Your task to perform on an android device: Open Reddit.com Image 0: 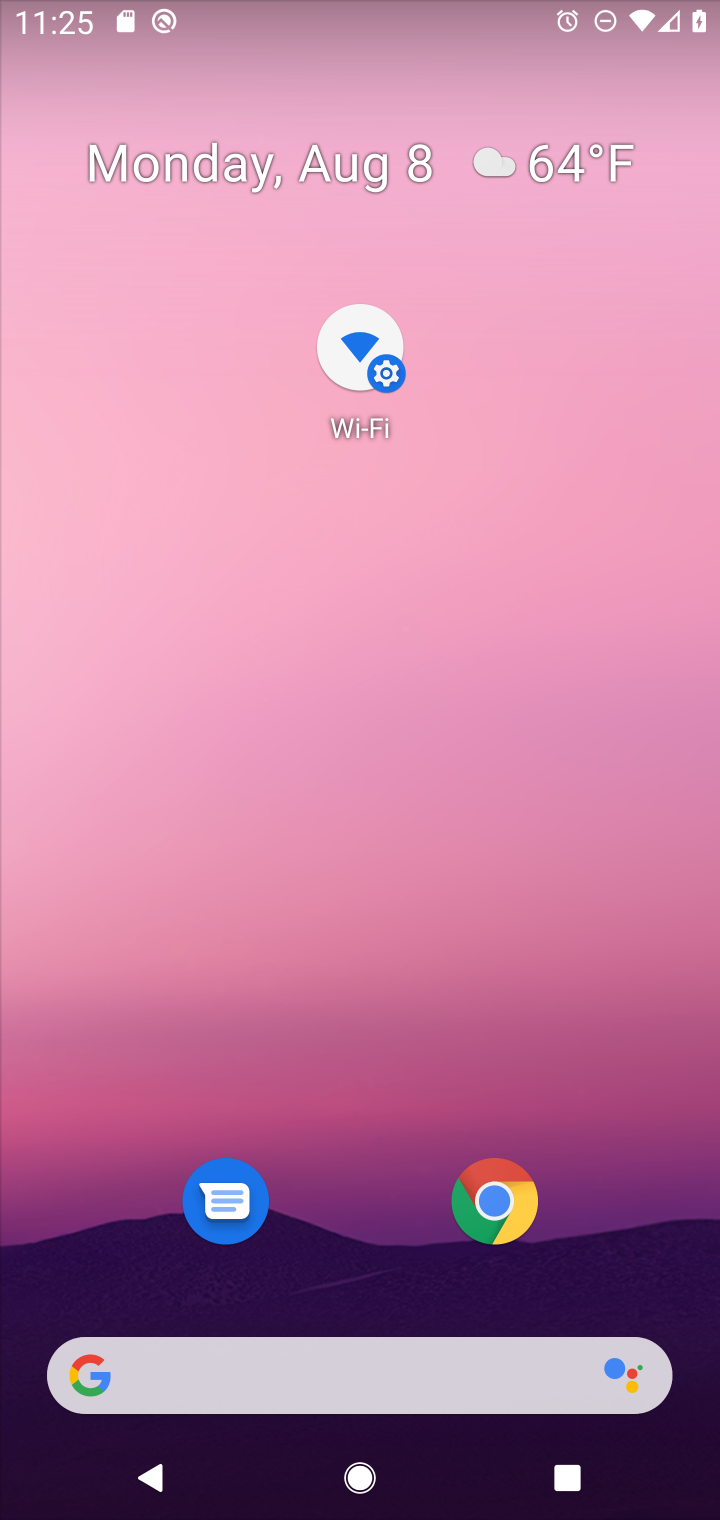
Step 0: press home button
Your task to perform on an android device: Open Reddit.com Image 1: 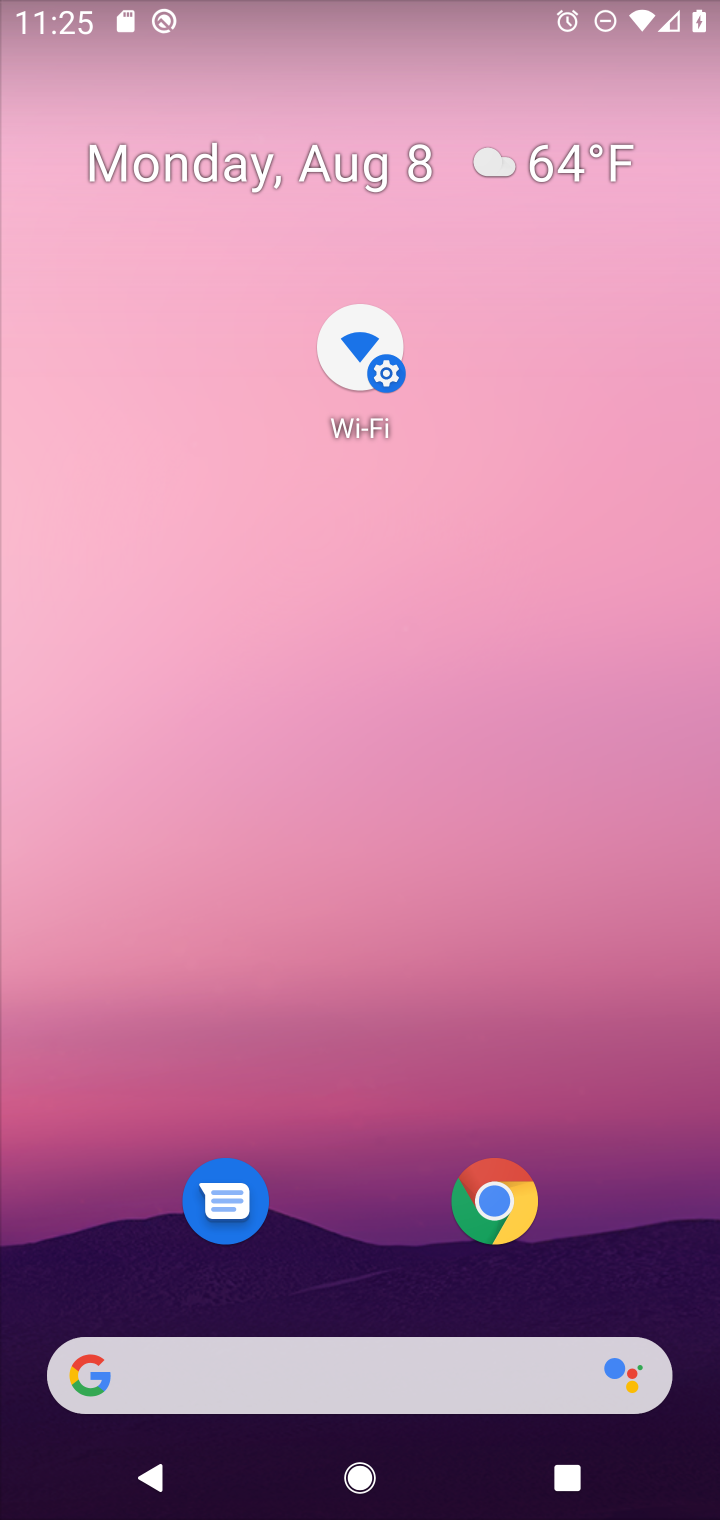
Step 1: drag from (356, 1162) to (494, 83)
Your task to perform on an android device: Open Reddit.com Image 2: 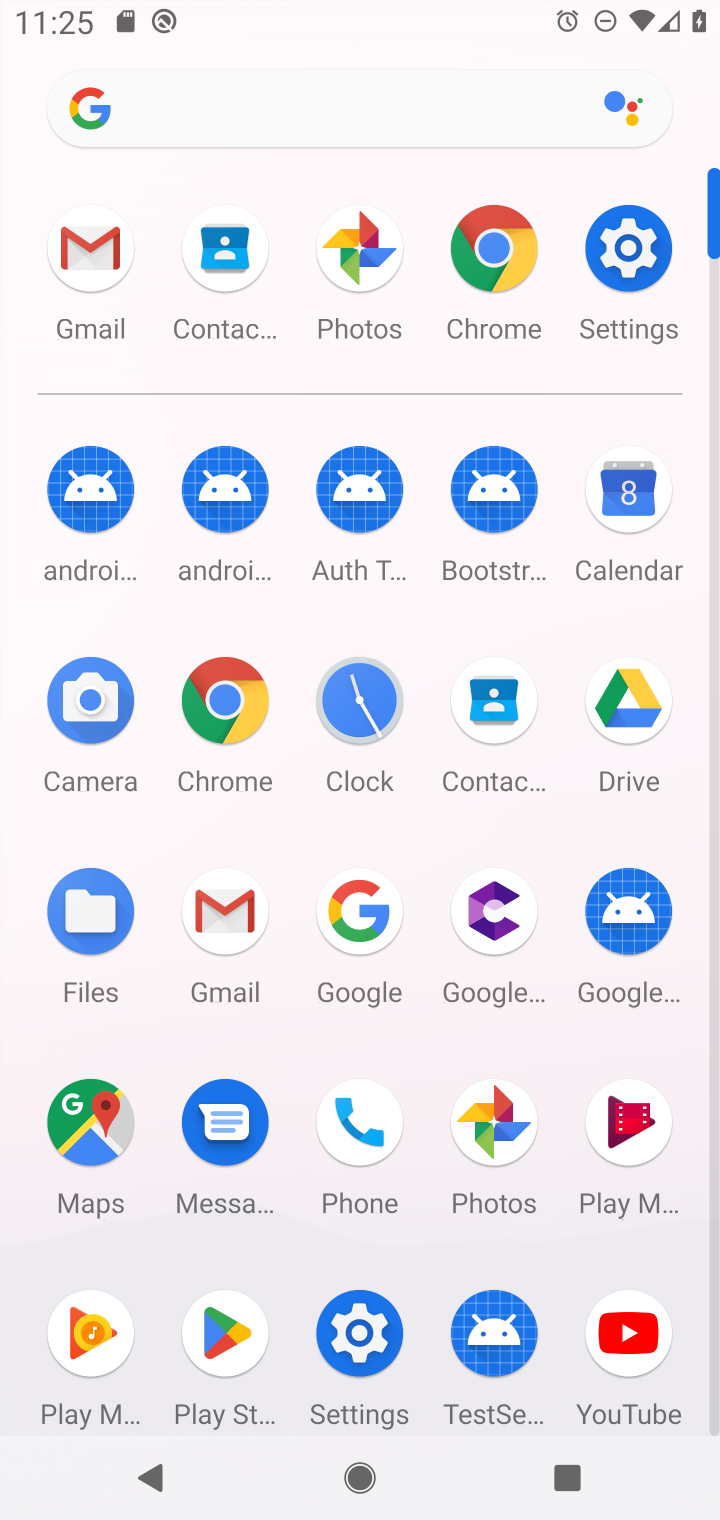
Step 2: click (225, 703)
Your task to perform on an android device: Open Reddit.com Image 3: 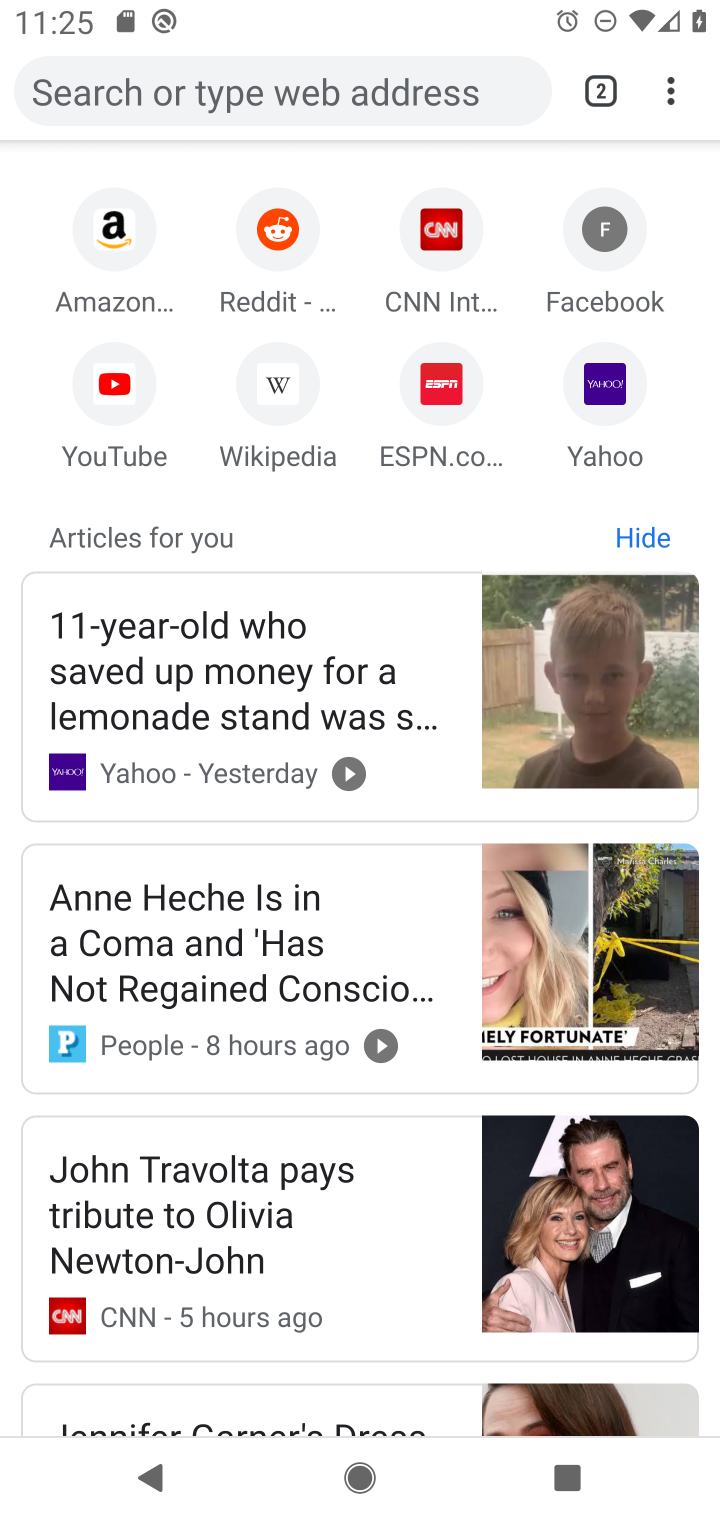
Step 3: click (402, 94)
Your task to perform on an android device: Open Reddit.com Image 4: 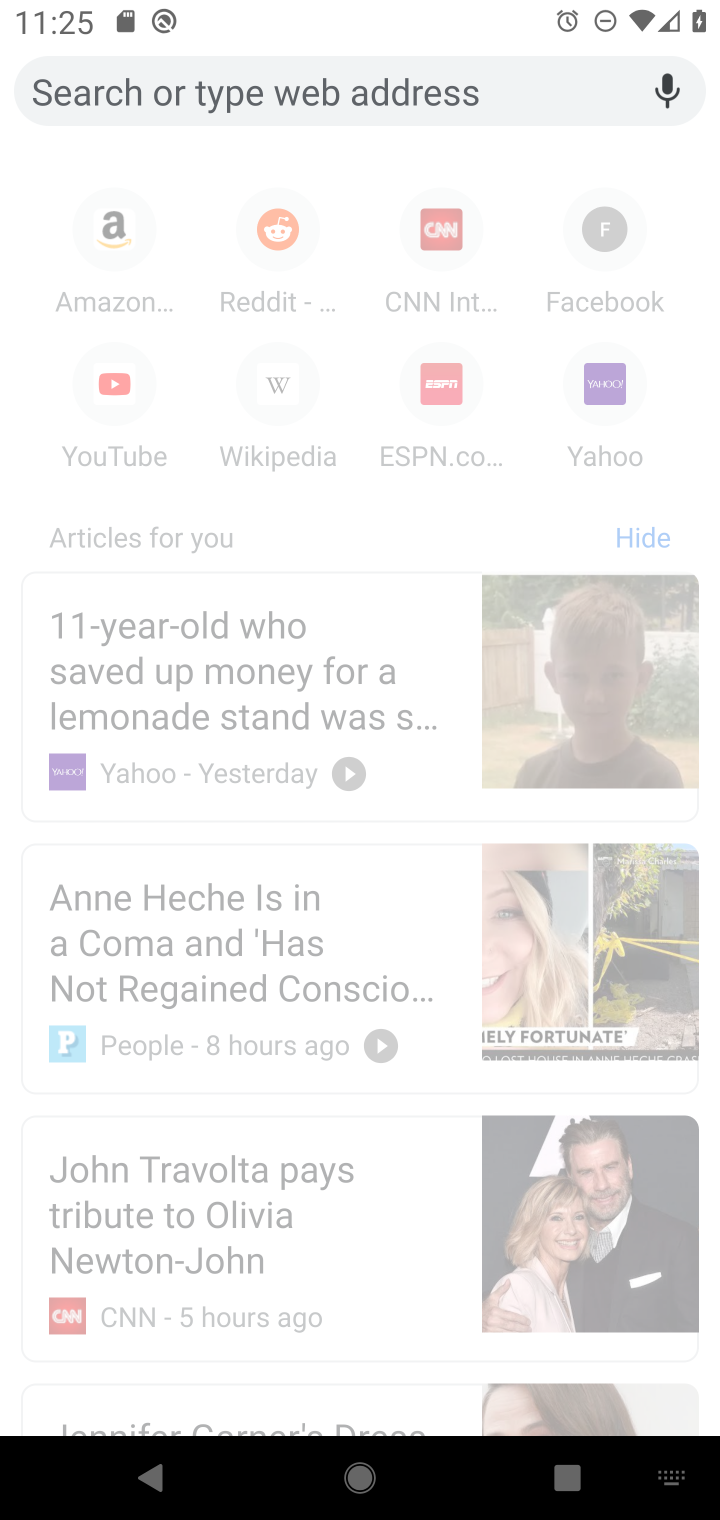
Step 4: type "reddit.com"
Your task to perform on an android device: Open Reddit.com Image 5: 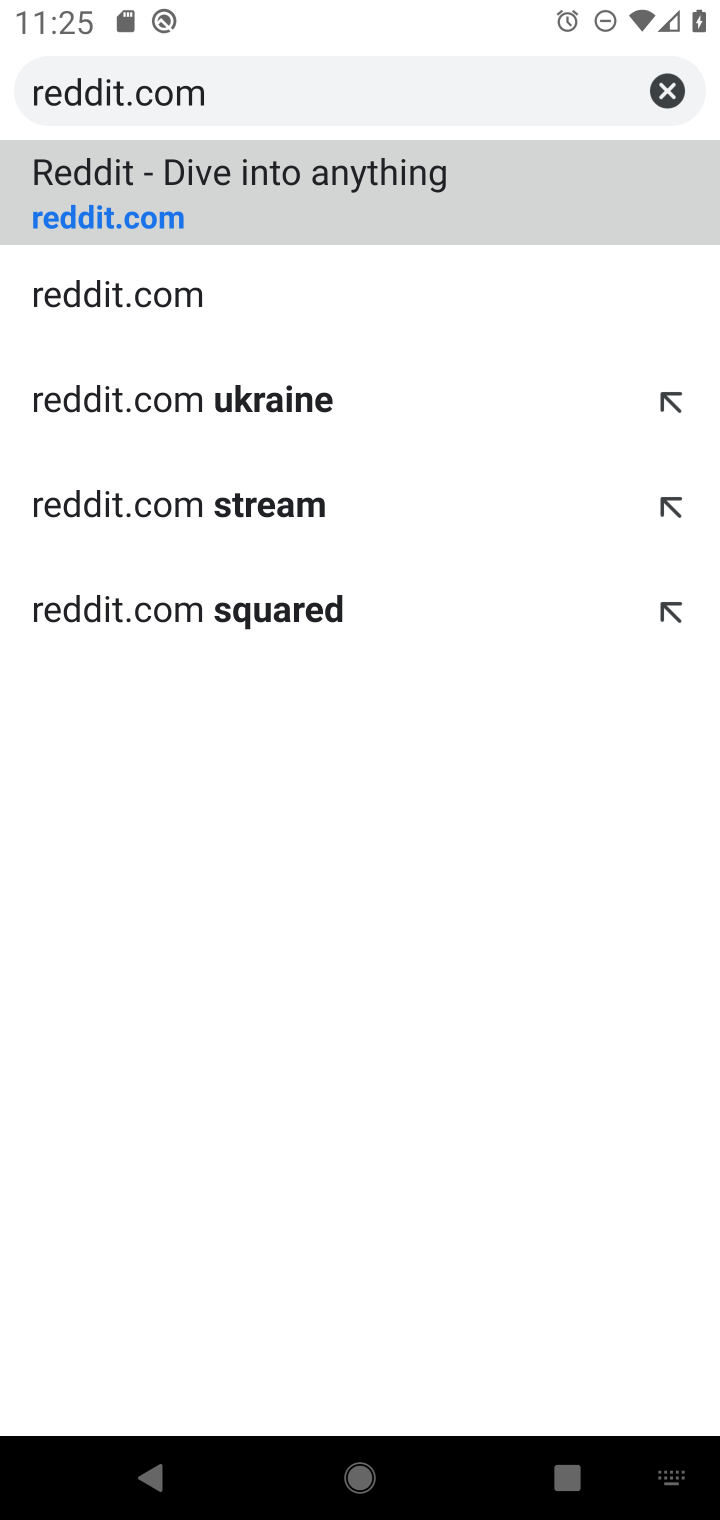
Step 5: click (425, 174)
Your task to perform on an android device: Open Reddit.com Image 6: 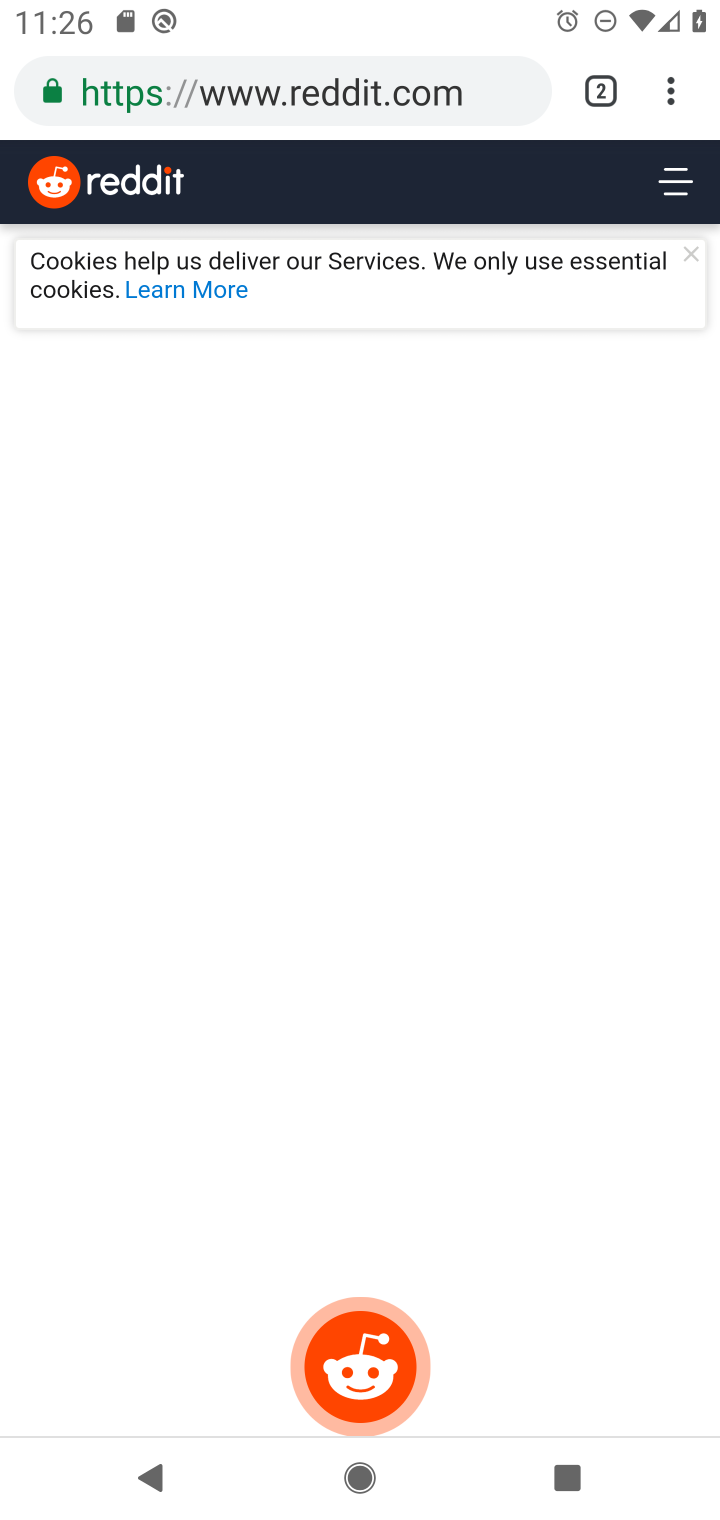
Step 6: task complete